Your task to perform on an android device: turn on data saver in the chrome app Image 0: 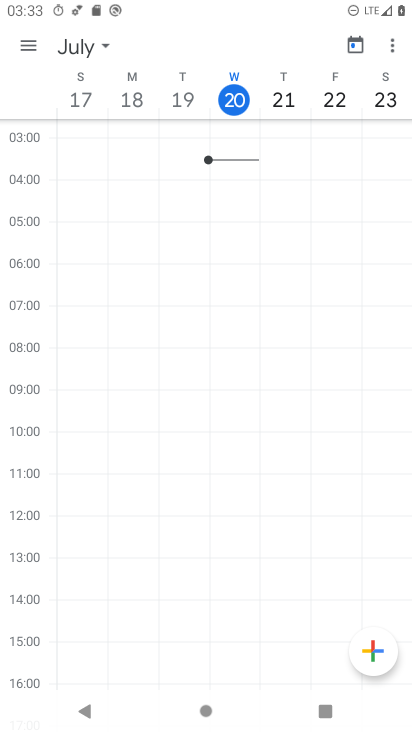
Step 0: press home button
Your task to perform on an android device: turn on data saver in the chrome app Image 1: 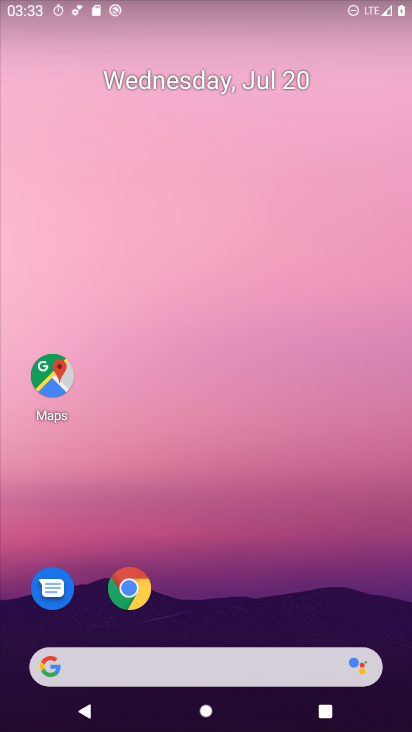
Step 1: click (125, 580)
Your task to perform on an android device: turn on data saver in the chrome app Image 2: 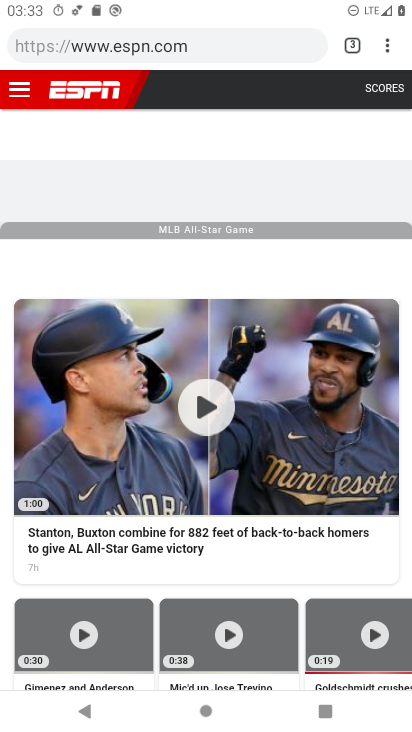
Step 2: click (385, 35)
Your task to perform on an android device: turn on data saver in the chrome app Image 3: 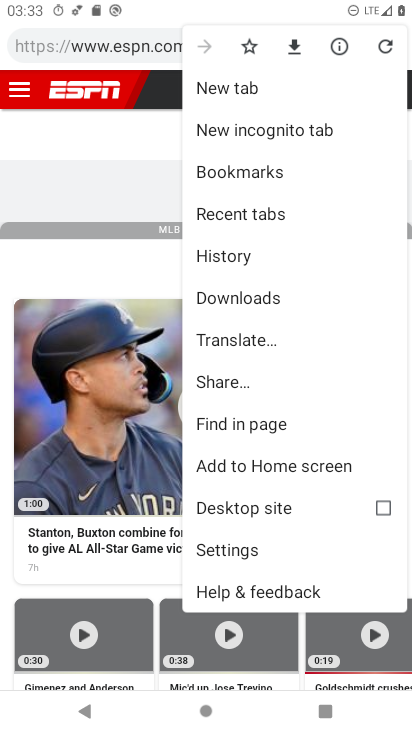
Step 3: click (211, 538)
Your task to perform on an android device: turn on data saver in the chrome app Image 4: 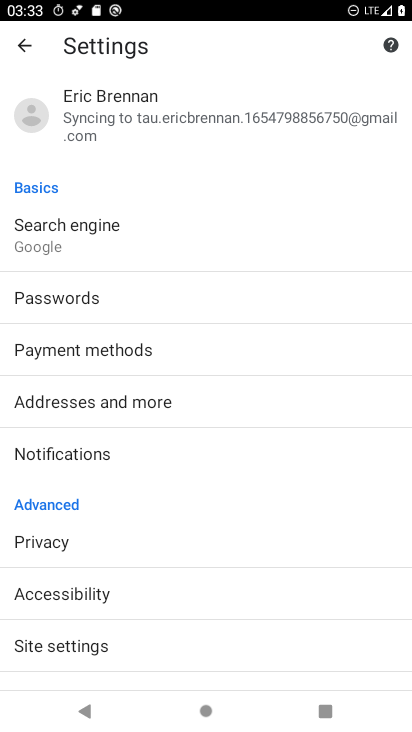
Step 4: drag from (137, 585) to (126, 175)
Your task to perform on an android device: turn on data saver in the chrome app Image 5: 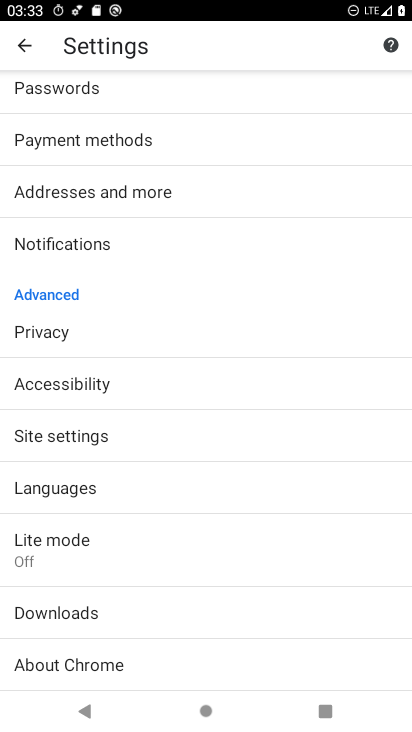
Step 5: click (41, 529)
Your task to perform on an android device: turn on data saver in the chrome app Image 6: 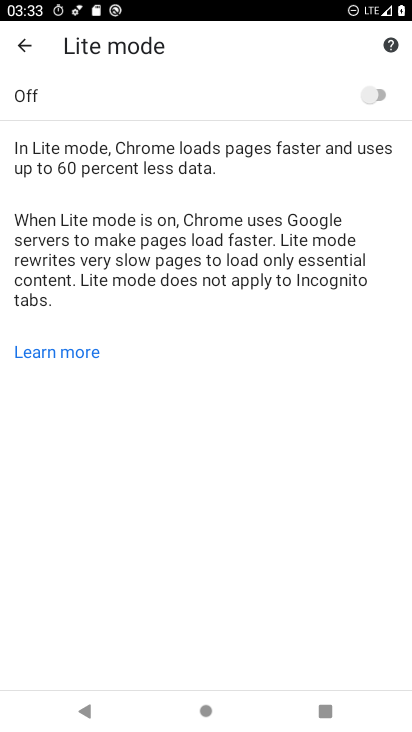
Step 6: click (381, 99)
Your task to perform on an android device: turn on data saver in the chrome app Image 7: 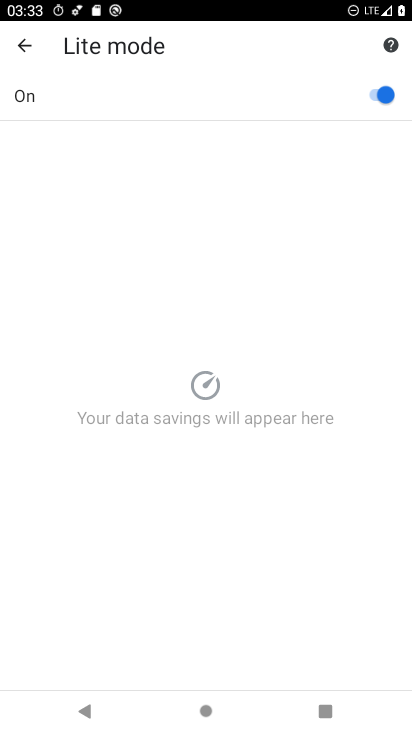
Step 7: task complete